Your task to perform on an android device: Go to sound settings Image 0: 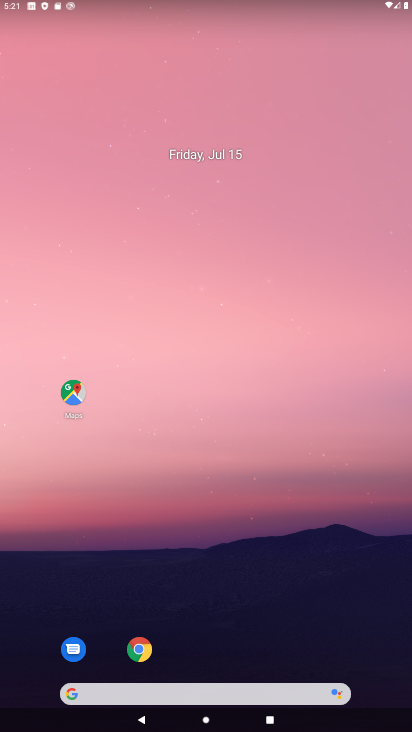
Step 0: drag from (183, 685) to (314, 140)
Your task to perform on an android device: Go to sound settings Image 1: 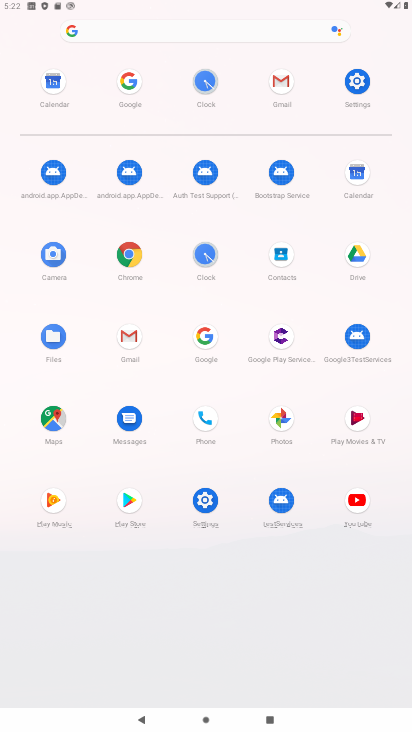
Step 1: click (355, 84)
Your task to perform on an android device: Go to sound settings Image 2: 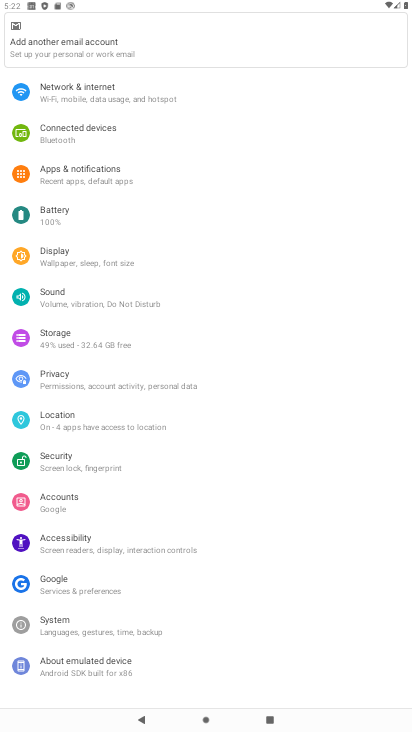
Step 2: click (89, 309)
Your task to perform on an android device: Go to sound settings Image 3: 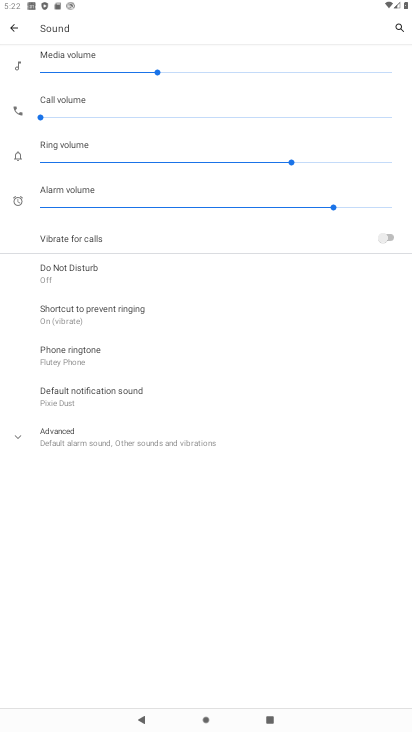
Step 3: task complete